Your task to perform on an android device: toggle improve location accuracy Image 0: 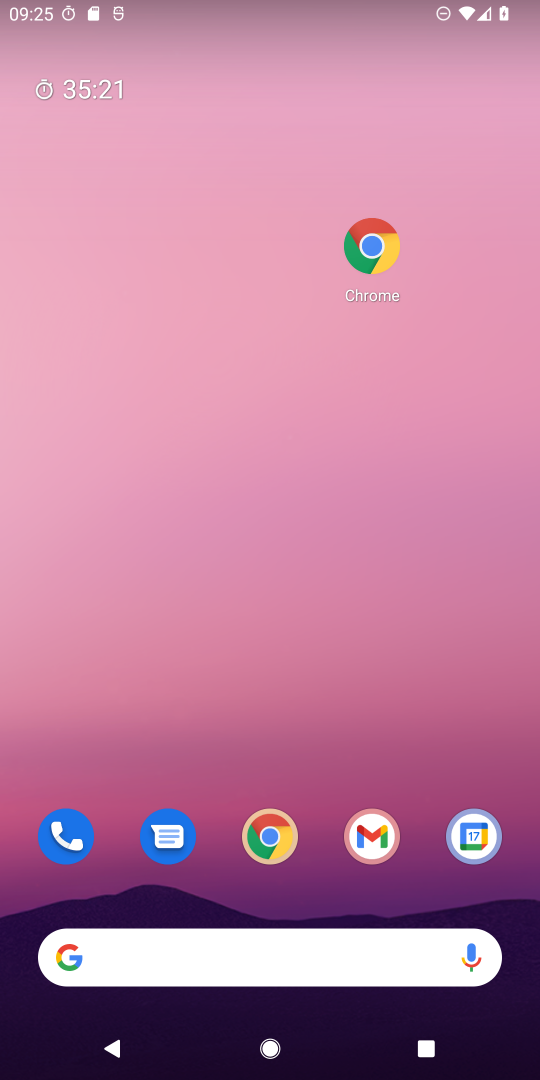
Step 0: drag from (185, 856) to (200, 214)
Your task to perform on an android device: toggle improve location accuracy Image 1: 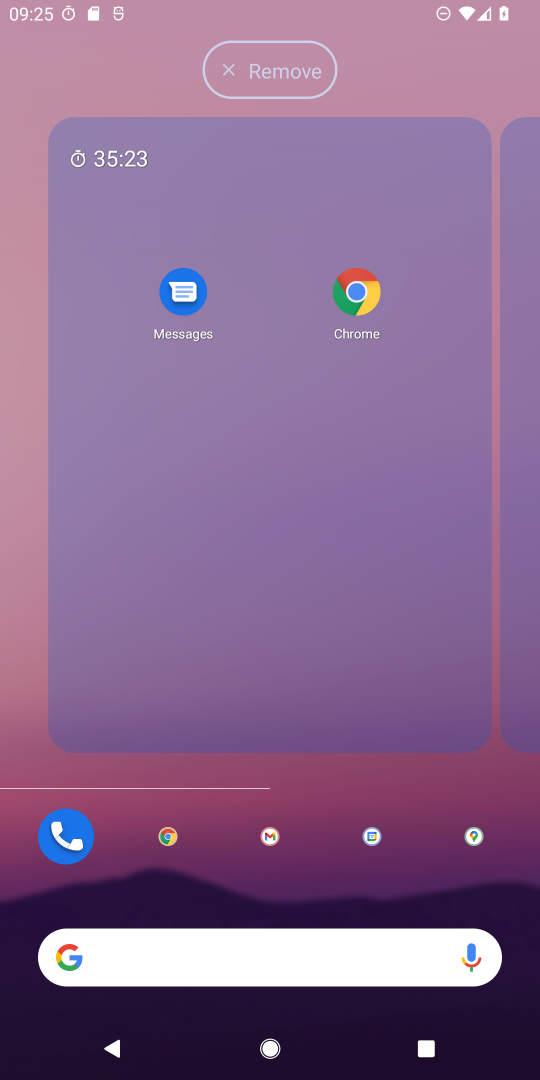
Step 1: click (454, 712)
Your task to perform on an android device: toggle improve location accuracy Image 2: 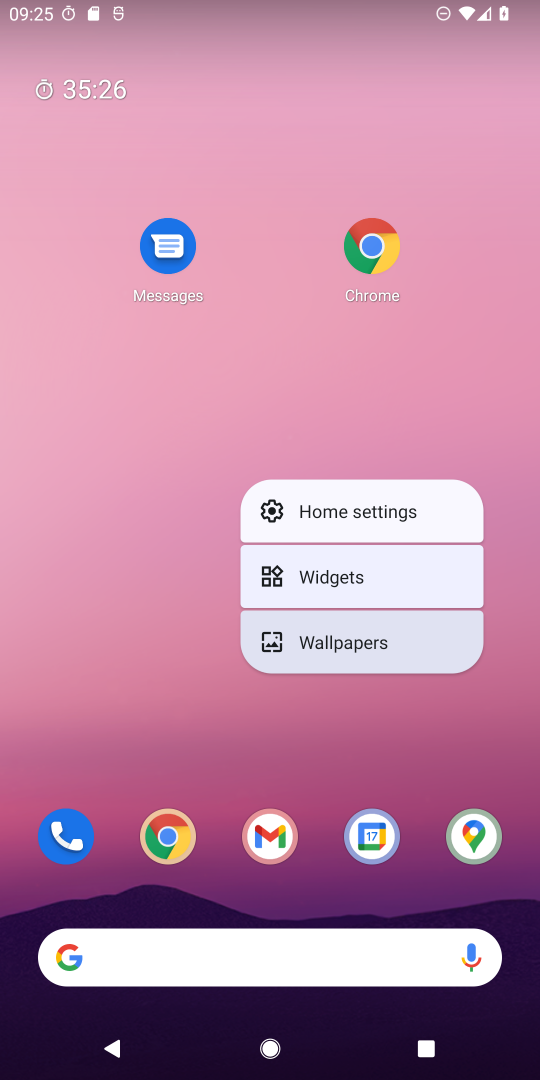
Step 2: drag from (275, 467) to (279, 303)
Your task to perform on an android device: toggle improve location accuracy Image 3: 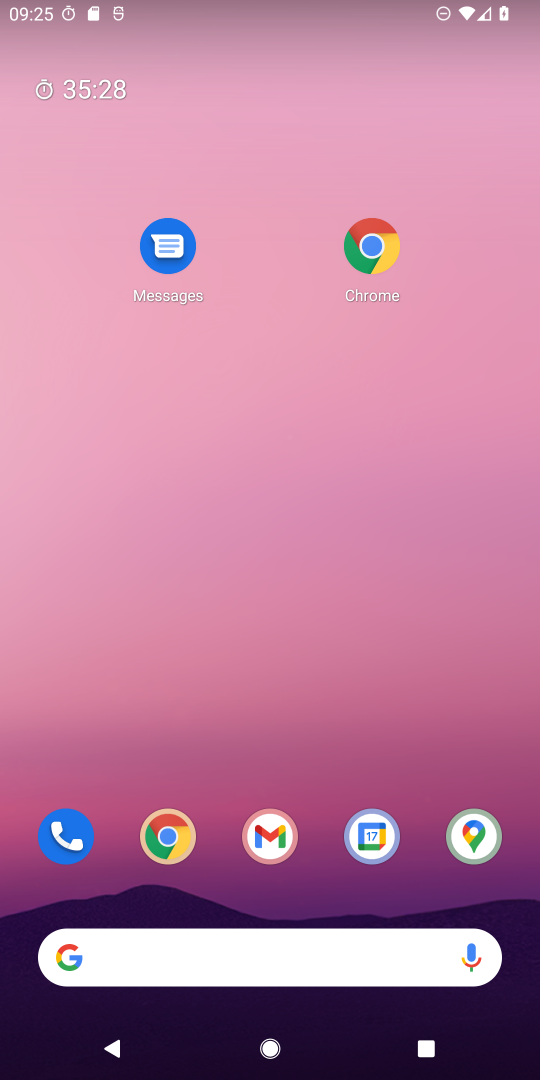
Step 3: drag from (313, 810) to (306, 276)
Your task to perform on an android device: toggle improve location accuracy Image 4: 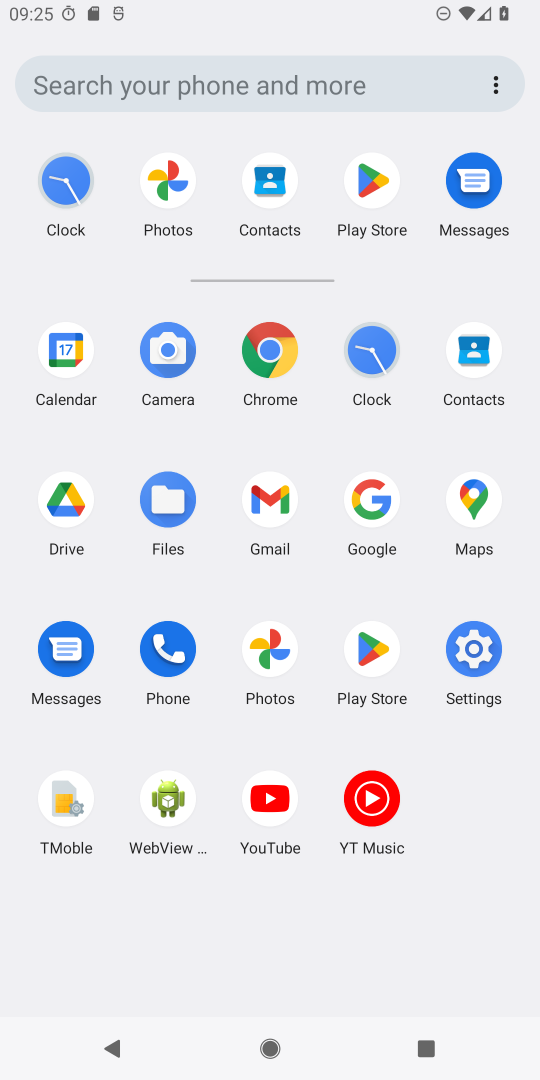
Step 4: click (454, 654)
Your task to perform on an android device: toggle improve location accuracy Image 5: 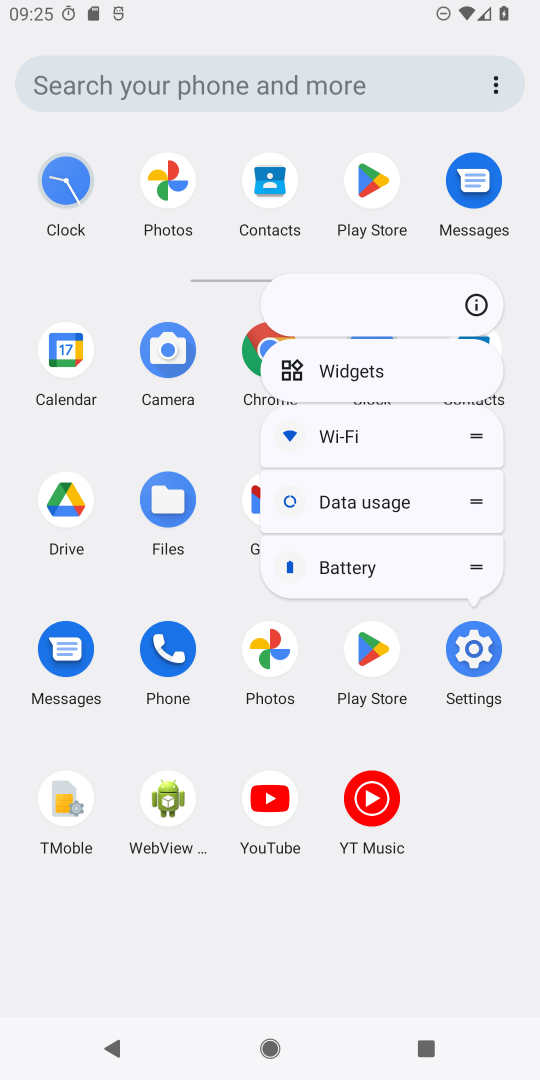
Step 5: click (462, 645)
Your task to perform on an android device: toggle improve location accuracy Image 6: 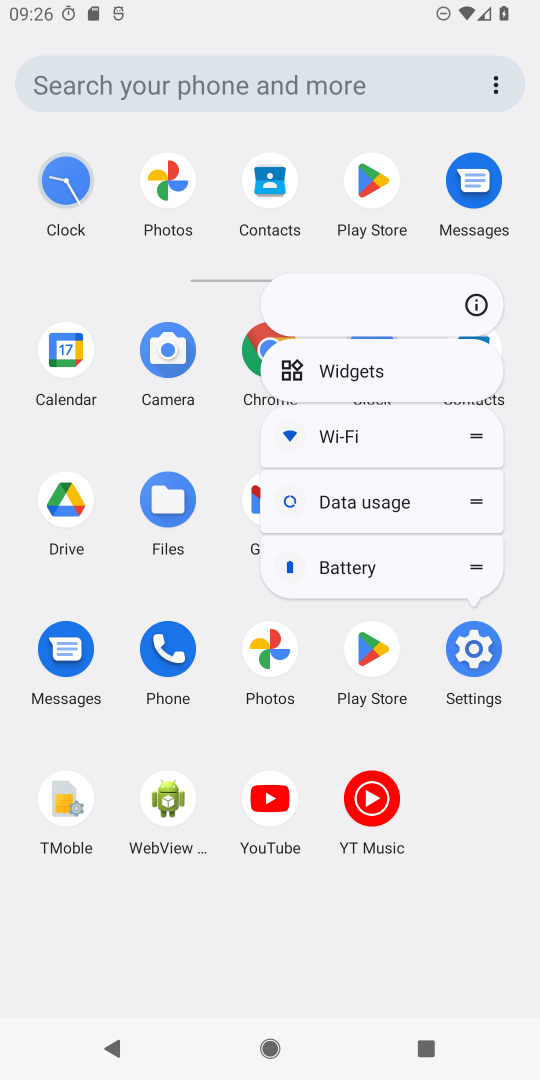
Step 6: click (462, 642)
Your task to perform on an android device: toggle improve location accuracy Image 7: 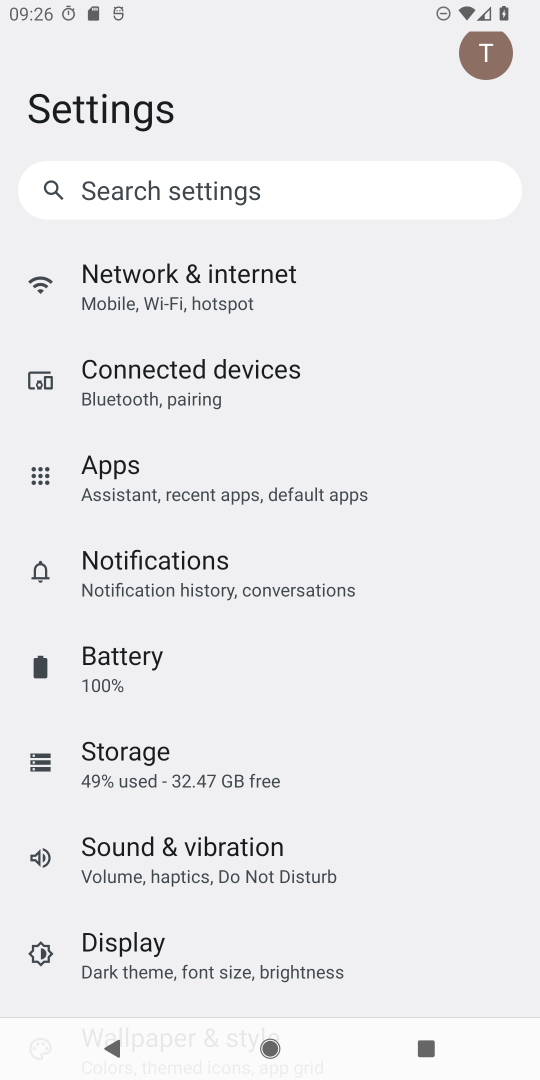
Step 7: drag from (196, 937) to (296, 352)
Your task to perform on an android device: toggle improve location accuracy Image 8: 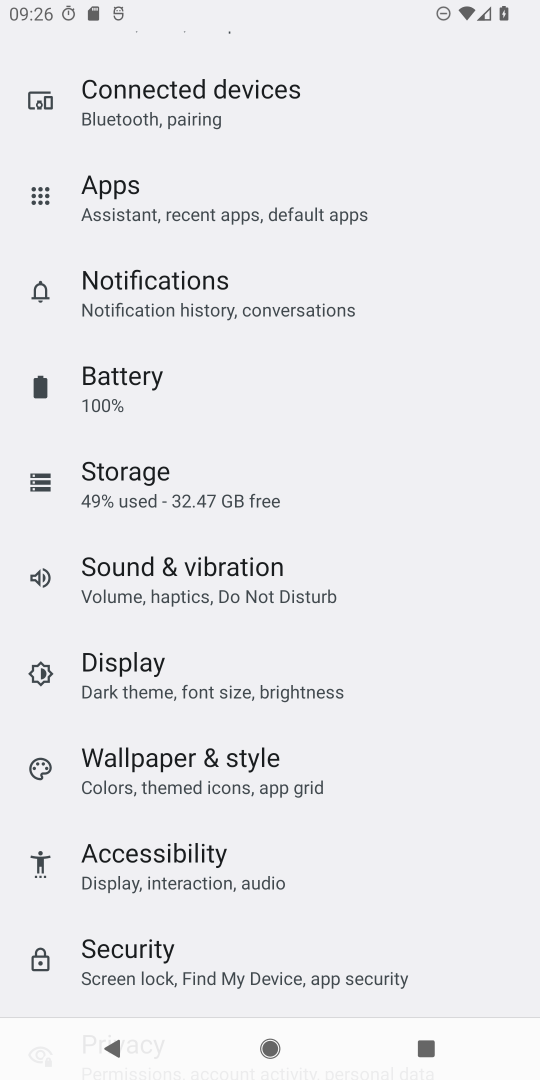
Step 8: drag from (210, 829) to (376, 270)
Your task to perform on an android device: toggle improve location accuracy Image 9: 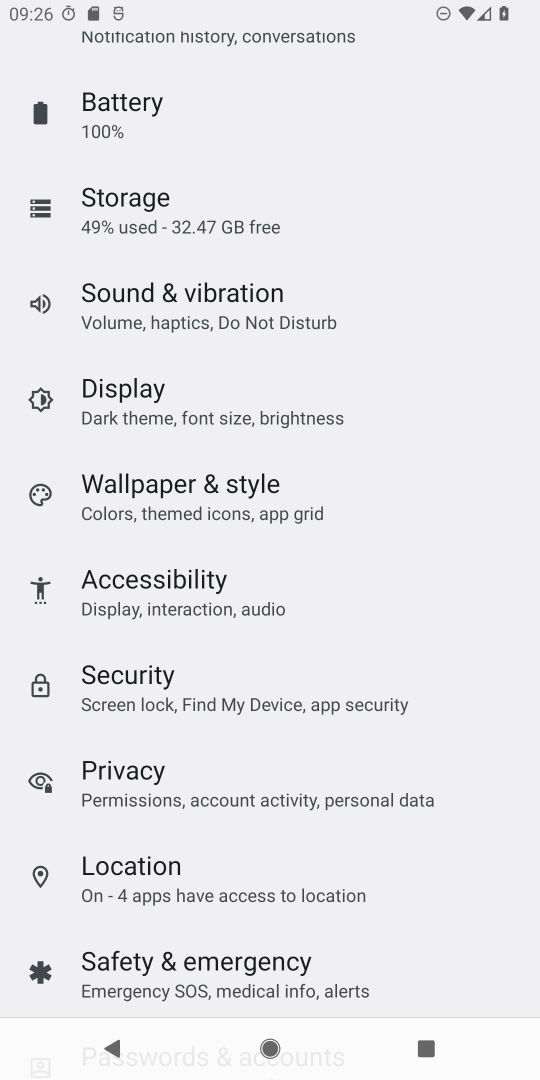
Step 9: click (214, 859)
Your task to perform on an android device: toggle improve location accuracy Image 10: 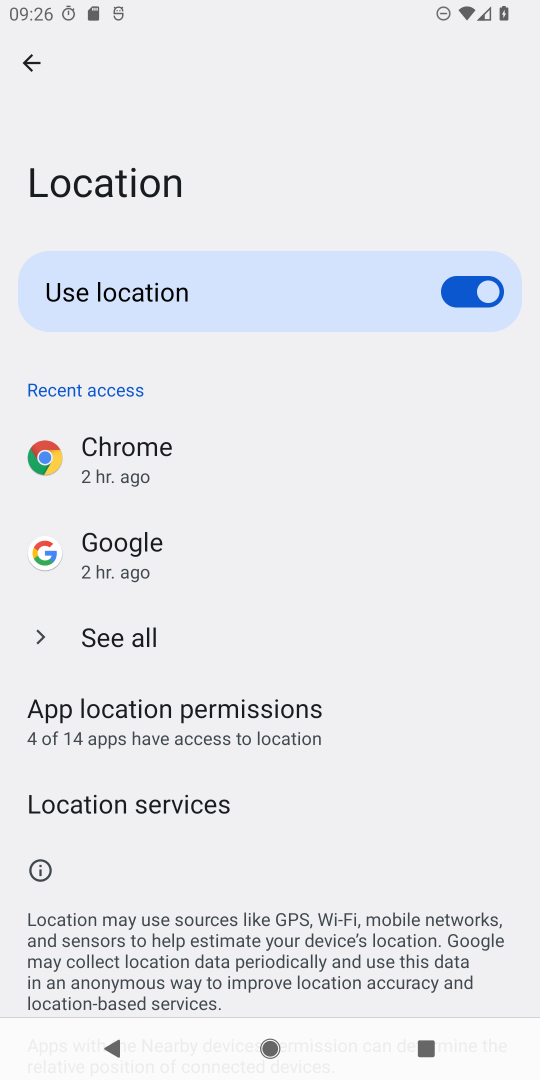
Step 10: click (222, 821)
Your task to perform on an android device: toggle improve location accuracy Image 11: 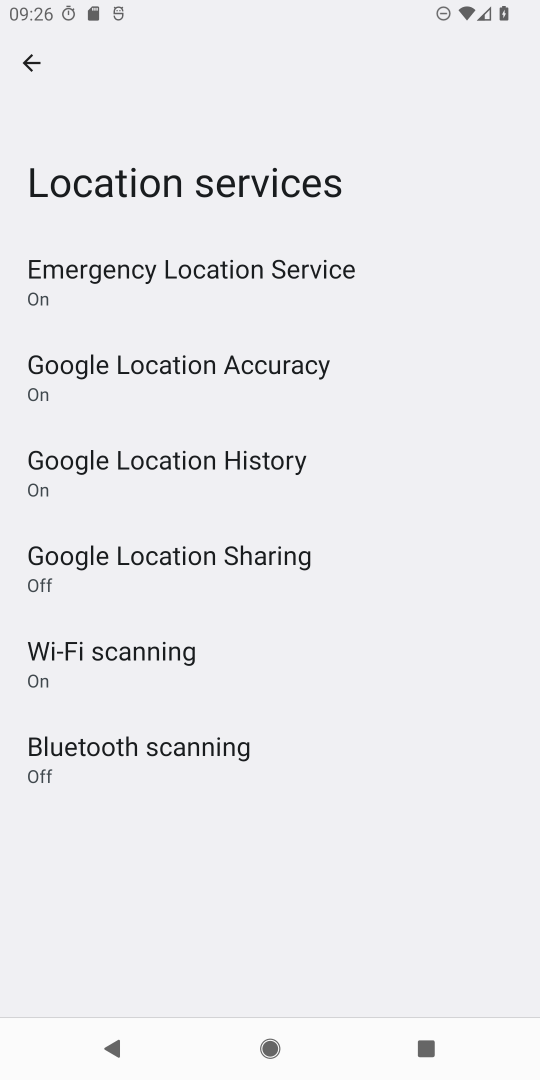
Step 11: click (296, 382)
Your task to perform on an android device: toggle improve location accuracy Image 12: 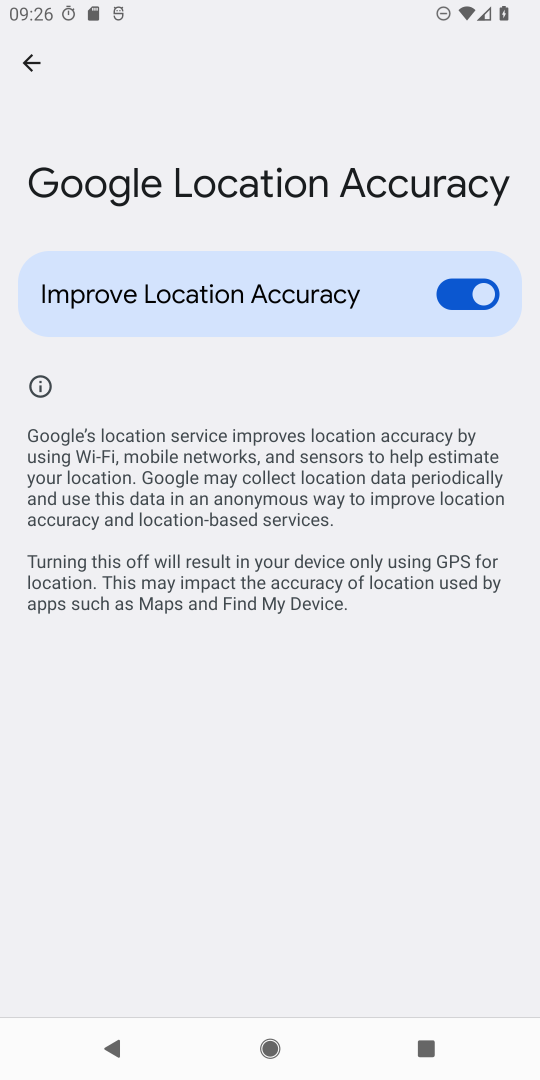
Step 12: click (477, 268)
Your task to perform on an android device: toggle improve location accuracy Image 13: 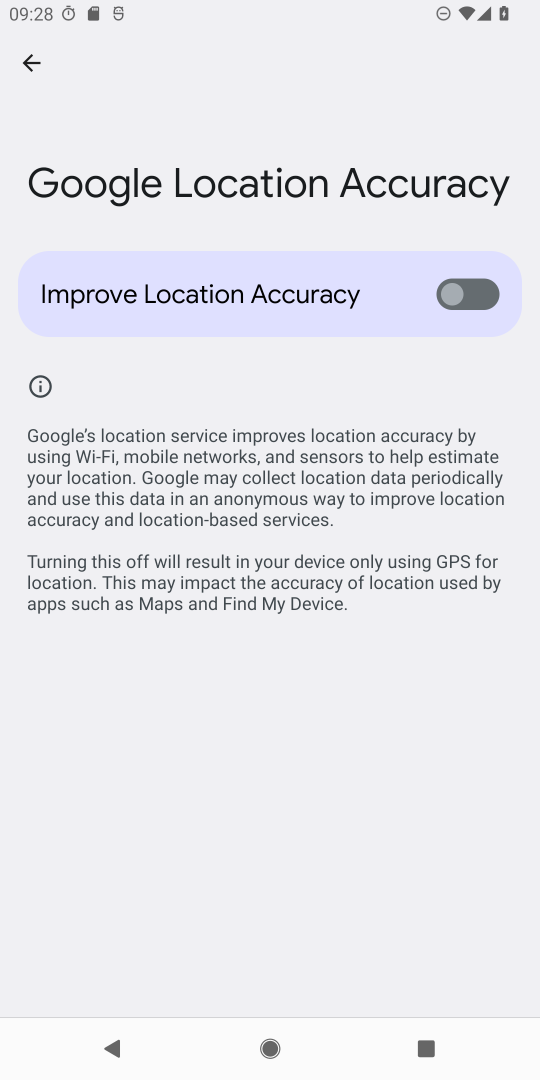
Step 13: task complete